Your task to perform on an android device: search for starred emails in the gmail app Image 0: 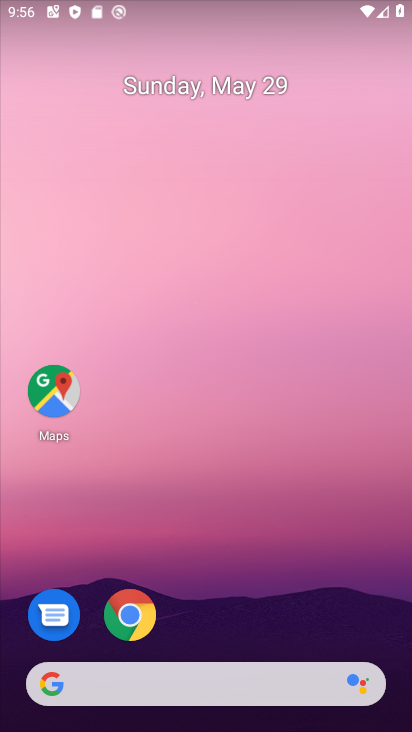
Step 0: drag from (196, 650) to (365, 68)
Your task to perform on an android device: search for starred emails in the gmail app Image 1: 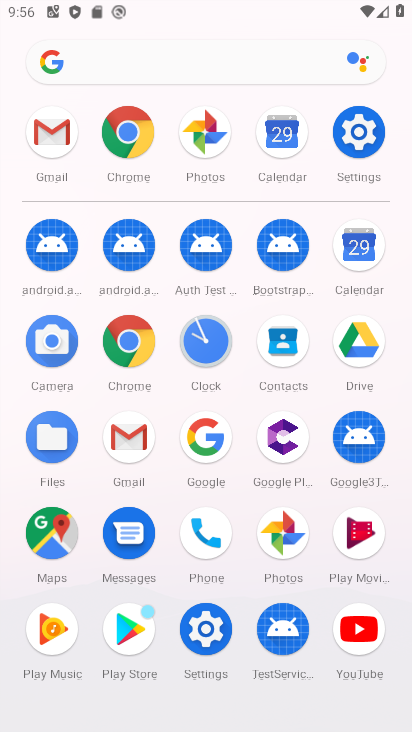
Step 1: click (126, 447)
Your task to perform on an android device: search for starred emails in the gmail app Image 2: 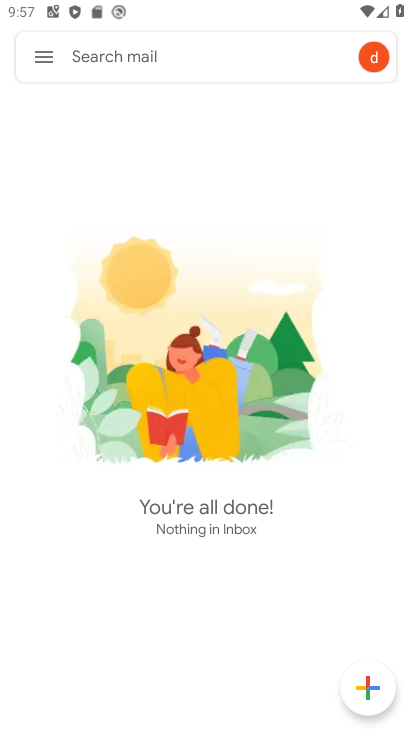
Step 2: task complete